Your task to perform on an android device: Search for hotels in Mexico city Image 0: 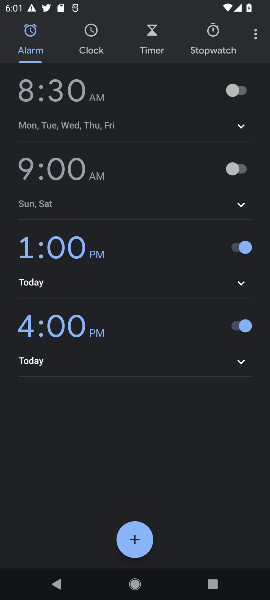
Step 0: press home button
Your task to perform on an android device: Search for hotels in Mexico city Image 1: 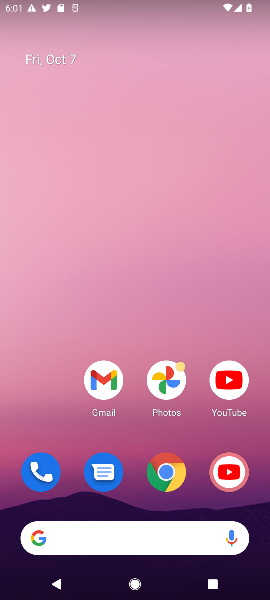
Step 1: click (171, 482)
Your task to perform on an android device: Search for hotels in Mexico city Image 2: 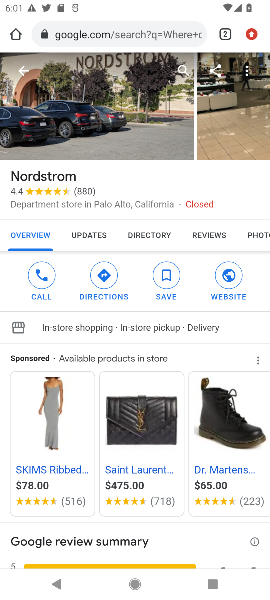
Step 2: click (162, 35)
Your task to perform on an android device: Search for hotels in Mexico city Image 3: 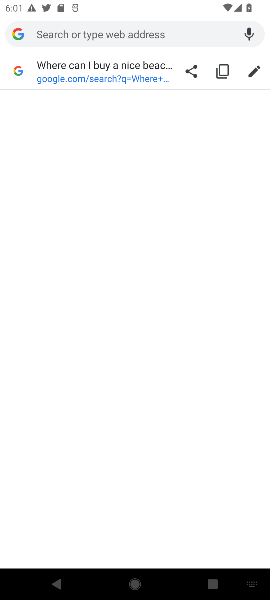
Step 3: type "hotels in Mexico city"
Your task to perform on an android device: Search for hotels in Mexico city Image 4: 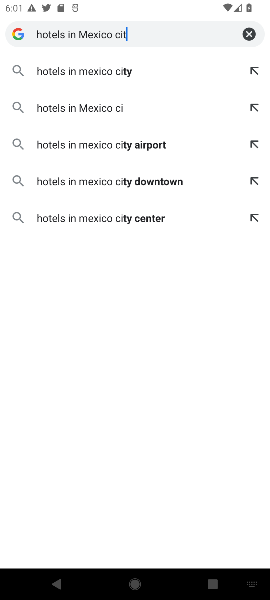
Step 4: type ""
Your task to perform on an android device: Search for hotels in Mexico city Image 5: 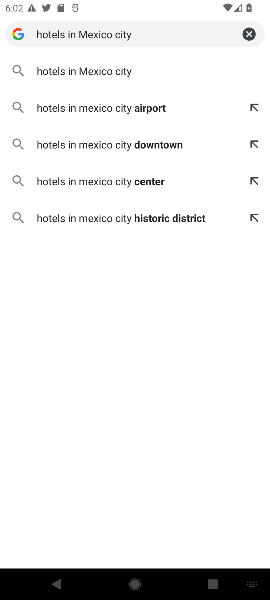
Step 5: click (86, 69)
Your task to perform on an android device: Search for hotels in Mexico city Image 6: 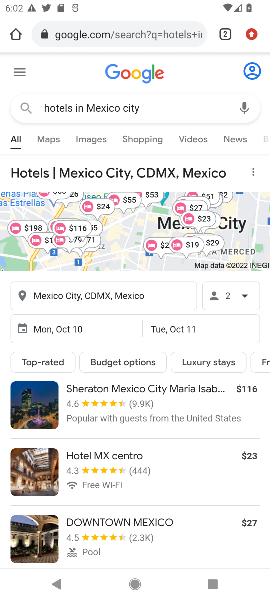
Step 6: drag from (157, 473) to (184, 226)
Your task to perform on an android device: Search for hotels in Mexico city Image 7: 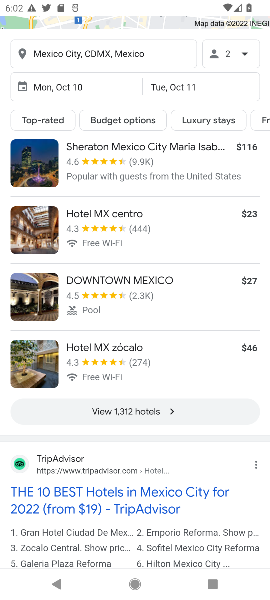
Step 7: click (141, 411)
Your task to perform on an android device: Search for hotels in Mexico city Image 8: 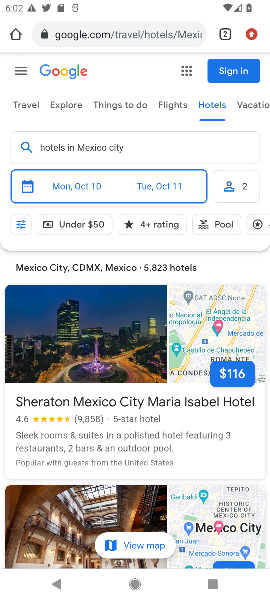
Step 8: task complete